Your task to perform on an android device: Add bose soundlink to the cart on bestbuy, then select checkout. Image 0: 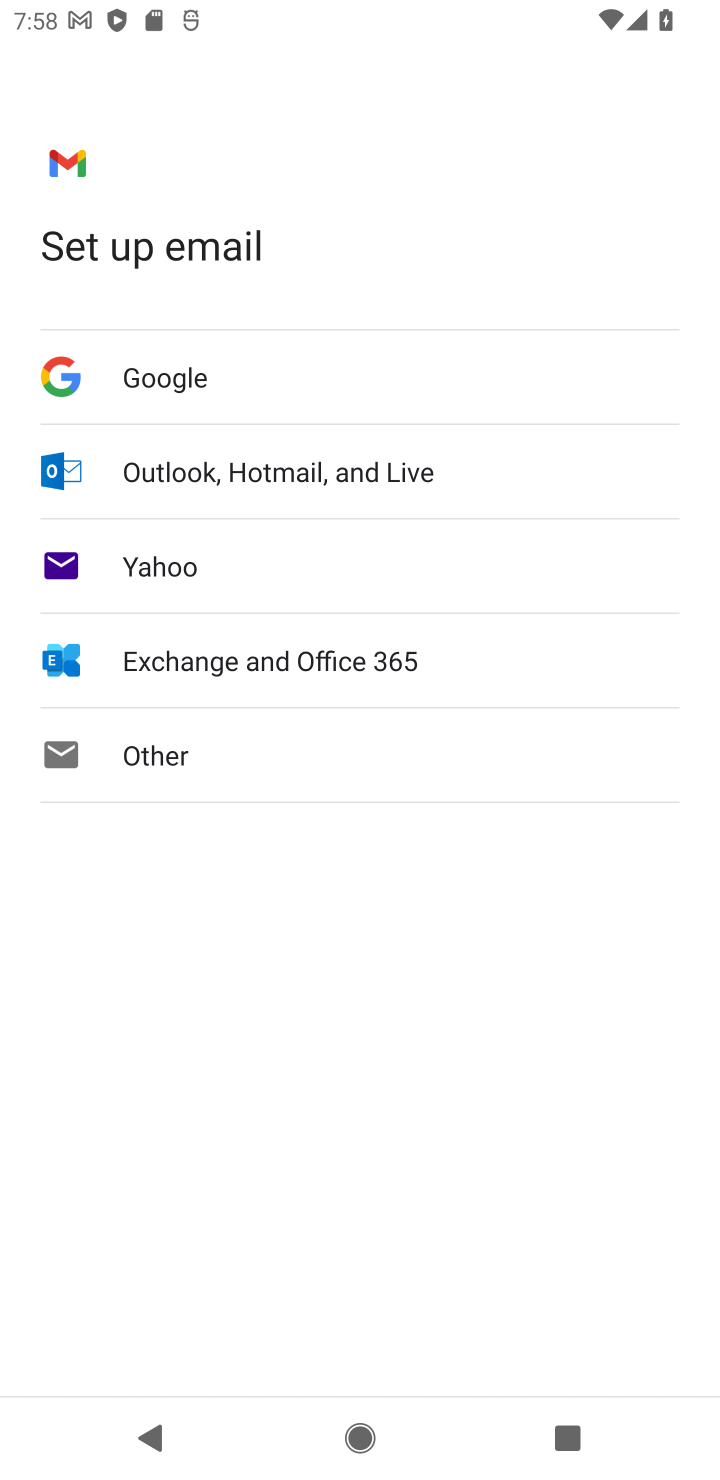
Step 0: task complete